Your task to perform on an android device: Is it going to rain this weekend? Image 0: 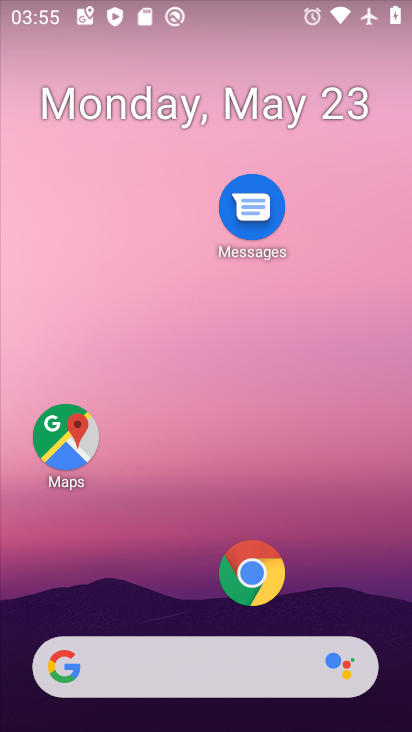
Step 0: drag from (297, 637) to (235, 1)
Your task to perform on an android device: Is it going to rain this weekend? Image 1: 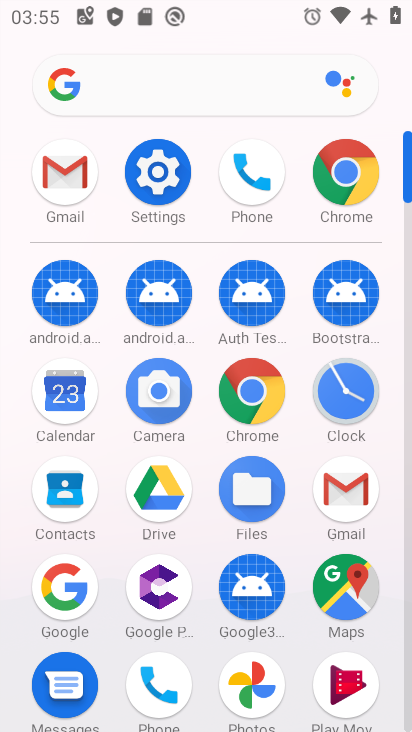
Step 1: click (86, 409)
Your task to perform on an android device: Is it going to rain this weekend? Image 2: 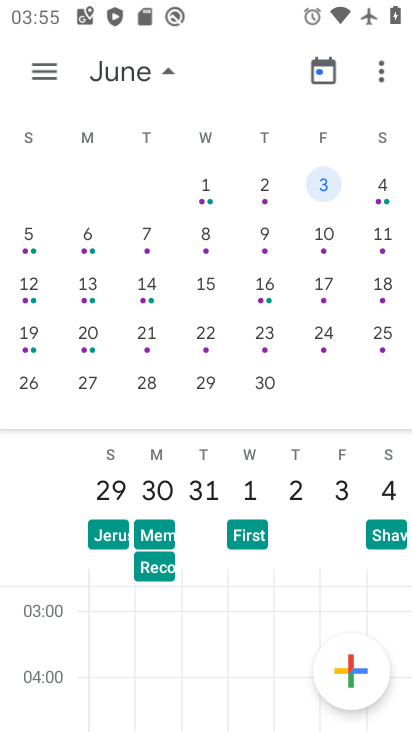
Step 2: press home button
Your task to perform on an android device: Is it going to rain this weekend? Image 3: 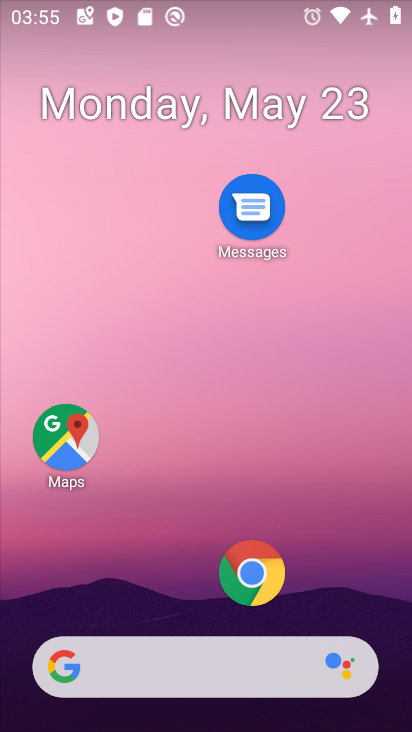
Step 3: drag from (63, 289) to (393, 299)
Your task to perform on an android device: Is it going to rain this weekend? Image 4: 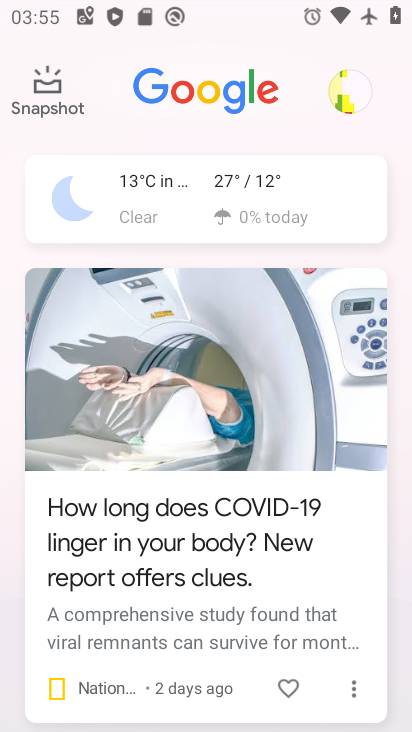
Step 4: click (161, 208)
Your task to perform on an android device: Is it going to rain this weekend? Image 5: 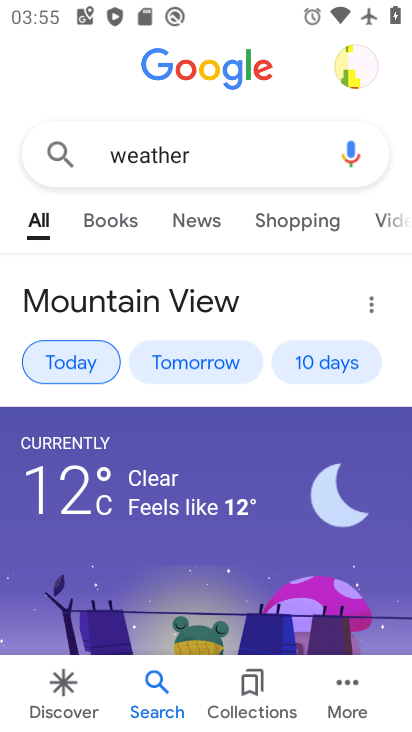
Step 5: task complete